Your task to perform on an android device: add a label to a message in the gmail app Image 0: 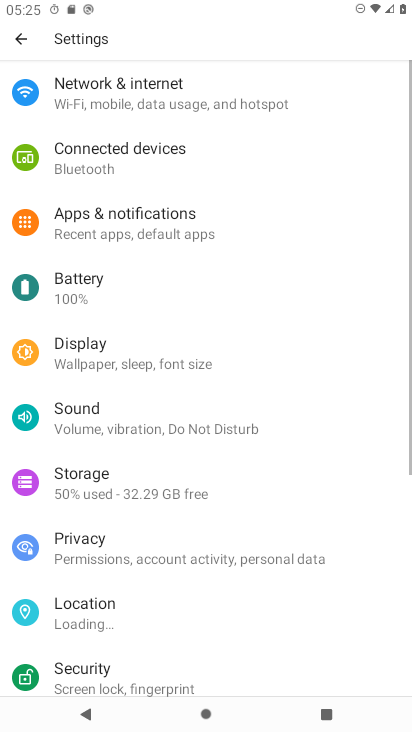
Step 0: press back button
Your task to perform on an android device: add a label to a message in the gmail app Image 1: 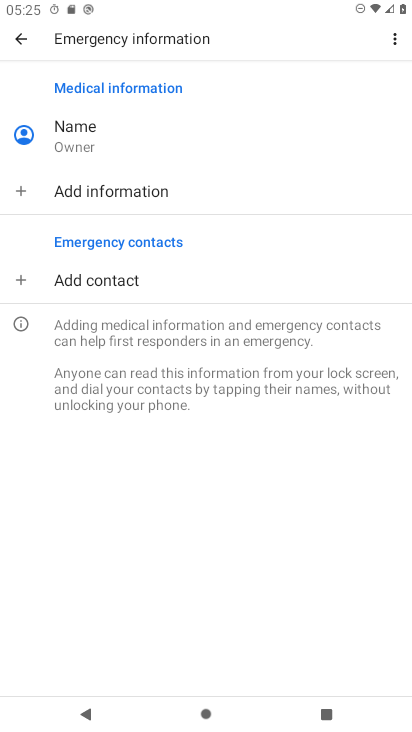
Step 1: press home button
Your task to perform on an android device: add a label to a message in the gmail app Image 2: 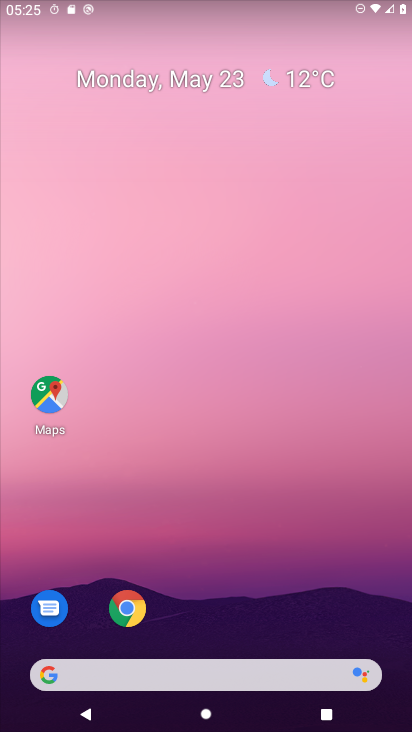
Step 2: drag from (291, 565) to (134, 91)
Your task to perform on an android device: add a label to a message in the gmail app Image 3: 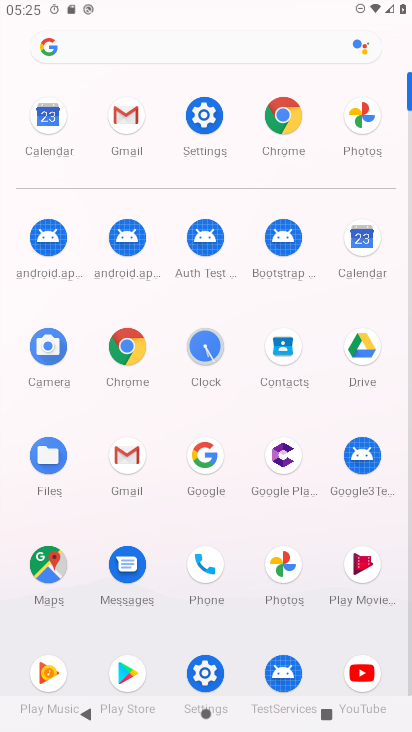
Step 3: click (139, 458)
Your task to perform on an android device: add a label to a message in the gmail app Image 4: 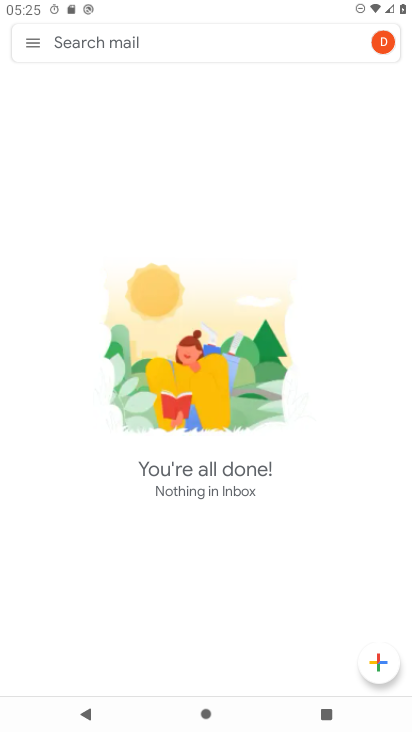
Step 4: click (25, 48)
Your task to perform on an android device: add a label to a message in the gmail app Image 5: 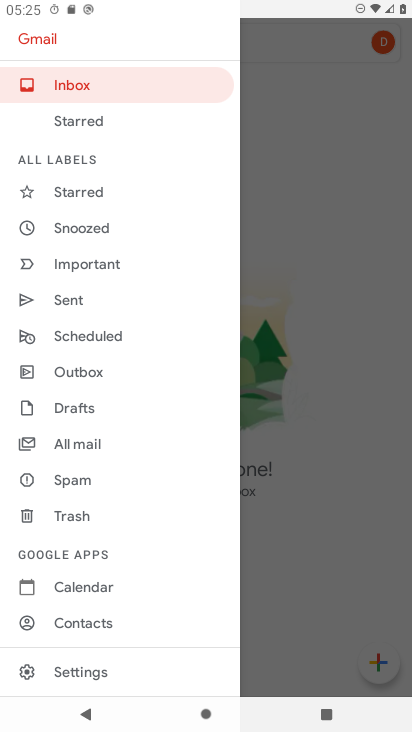
Step 5: task complete